Your task to perform on an android device: Go to CNN.com Image 0: 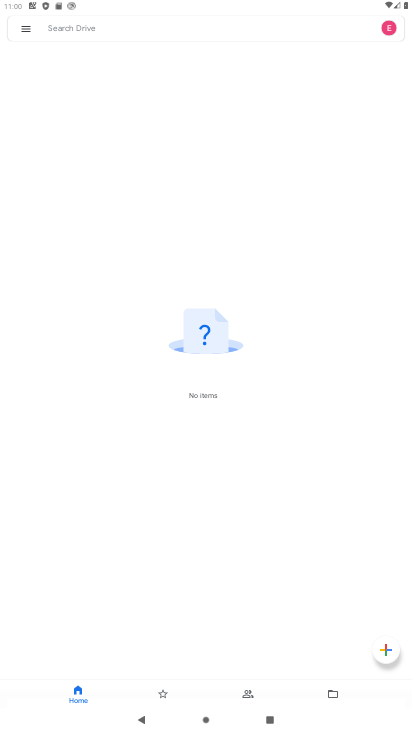
Step 0: drag from (385, 647) to (288, 218)
Your task to perform on an android device: Go to CNN.com Image 1: 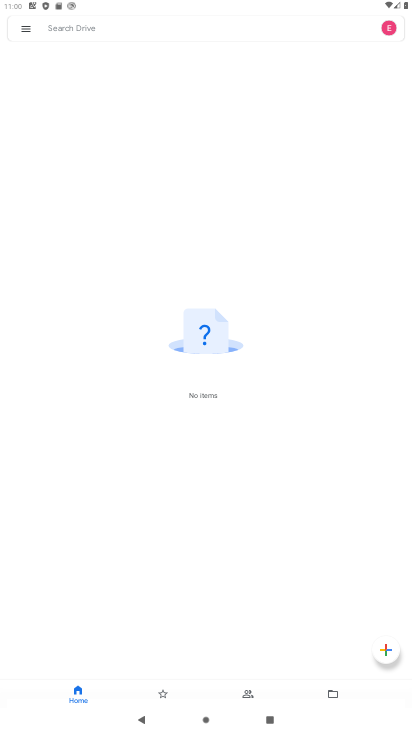
Step 1: press home button
Your task to perform on an android device: Go to CNN.com Image 2: 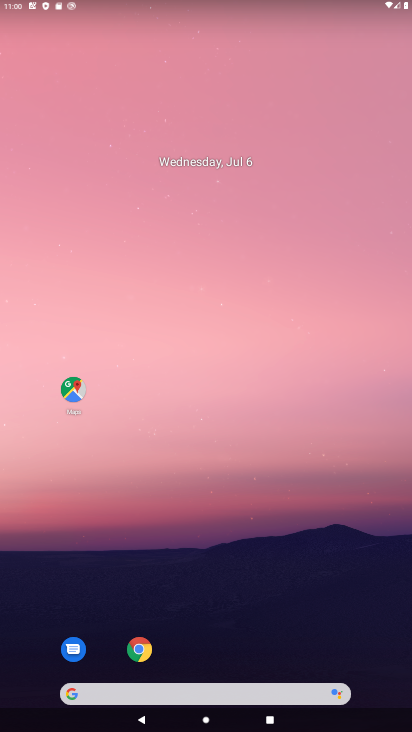
Step 2: drag from (369, 659) to (198, 40)
Your task to perform on an android device: Go to CNN.com Image 3: 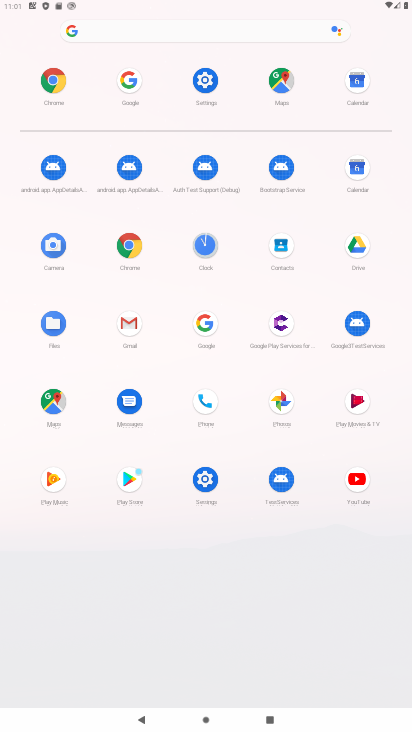
Step 3: click (175, 332)
Your task to perform on an android device: Go to CNN.com Image 4: 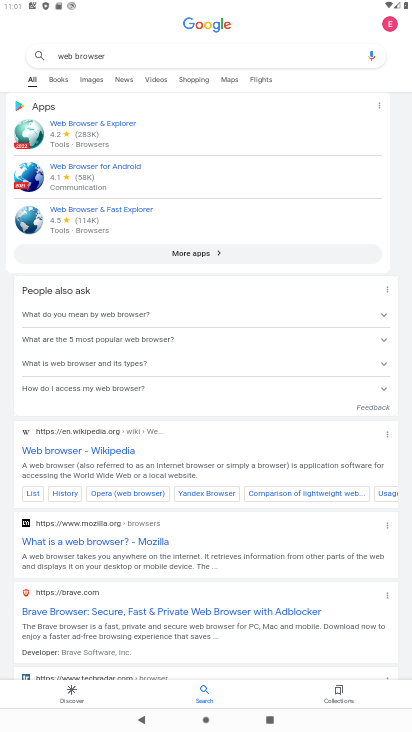
Step 4: press back button
Your task to perform on an android device: Go to CNN.com Image 5: 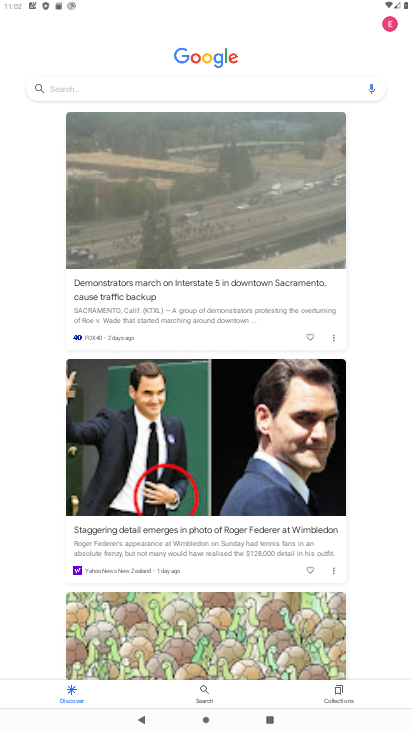
Step 5: click (63, 90)
Your task to perform on an android device: Go to CNN.com Image 6: 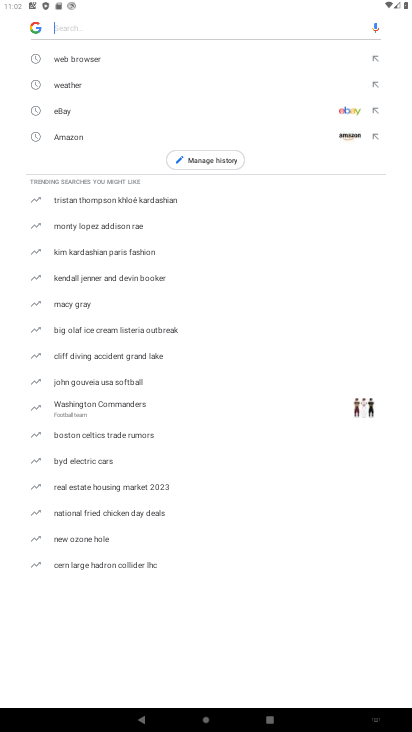
Step 6: type "cnn.com"
Your task to perform on an android device: Go to CNN.com Image 7: 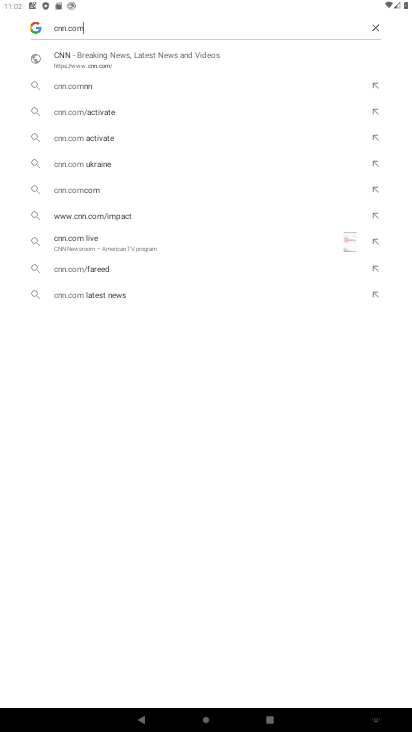
Step 7: click (102, 65)
Your task to perform on an android device: Go to CNN.com Image 8: 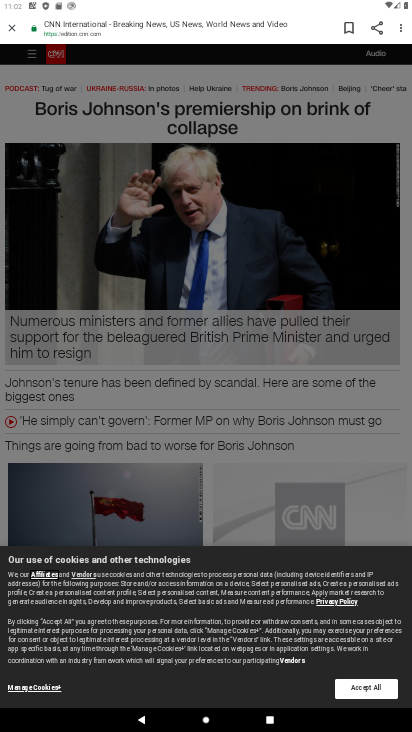
Step 8: task complete